Your task to perform on an android device: choose inbox layout in the gmail app Image 0: 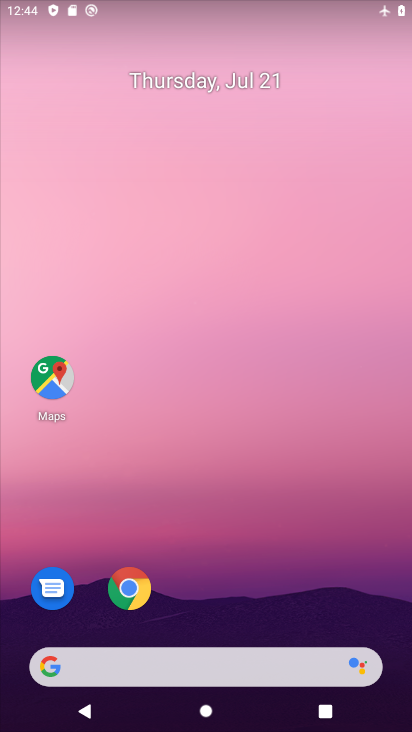
Step 0: drag from (300, 630) to (257, 219)
Your task to perform on an android device: choose inbox layout in the gmail app Image 1: 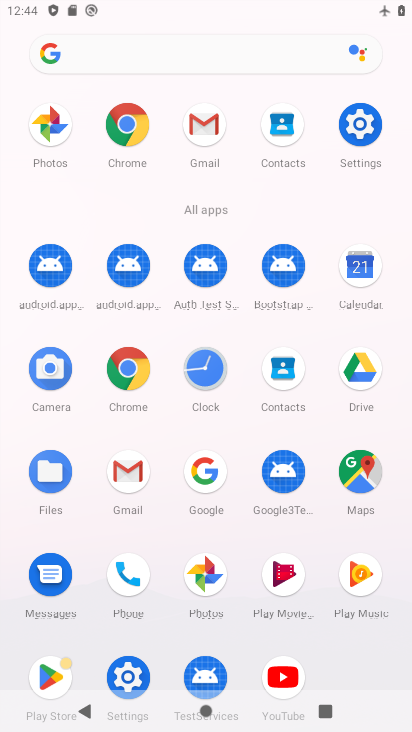
Step 1: click (196, 140)
Your task to perform on an android device: choose inbox layout in the gmail app Image 2: 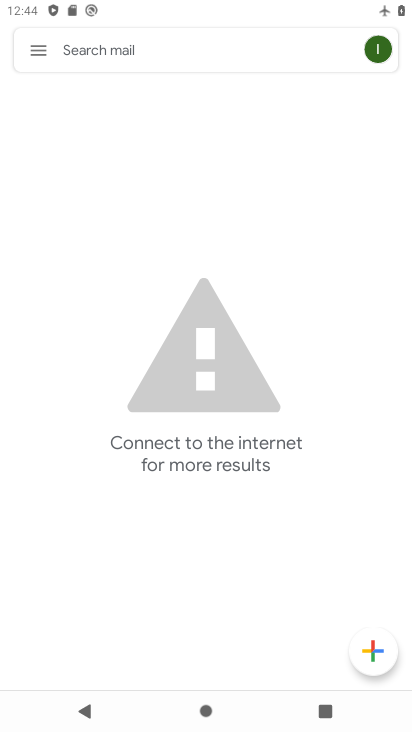
Step 2: click (42, 52)
Your task to perform on an android device: choose inbox layout in the gmail app Image 3: 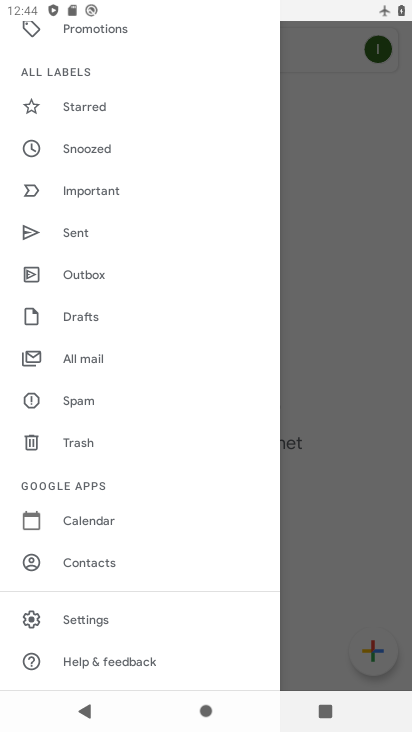
Step 3: click (84, 623)
Your task to perform on an android device: choose inbox layout in the gmail app Image 4: 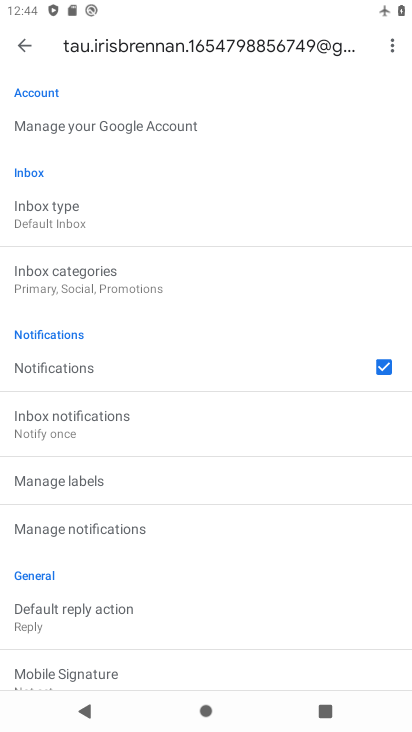
Step 4: click (114, 216)
Your task to perform on an android device: choose inbox layout in the gmail app Image 5: 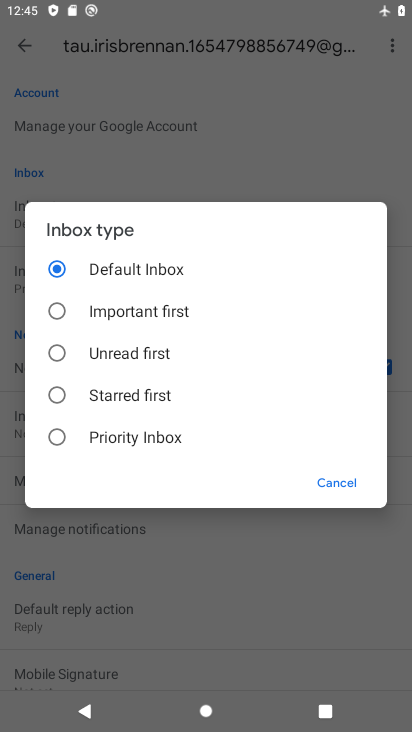
Step 5: click (146, 307)
Your task to perform on an android device: choose inbox layout in the gmail app Image 6: 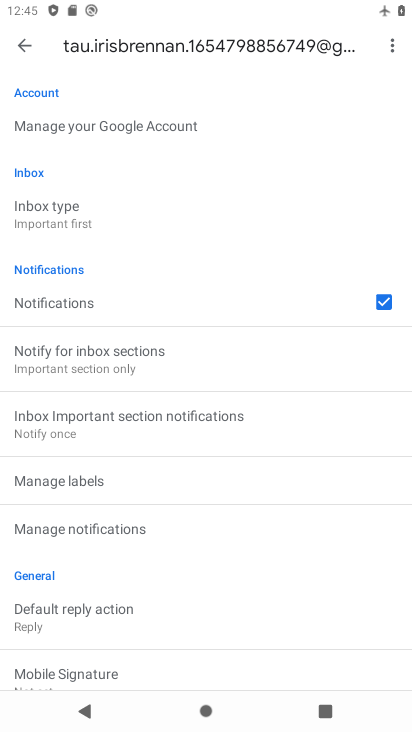
Step 6: task complete